Your task to perform on an android device: Open Google Chrome Image 0: 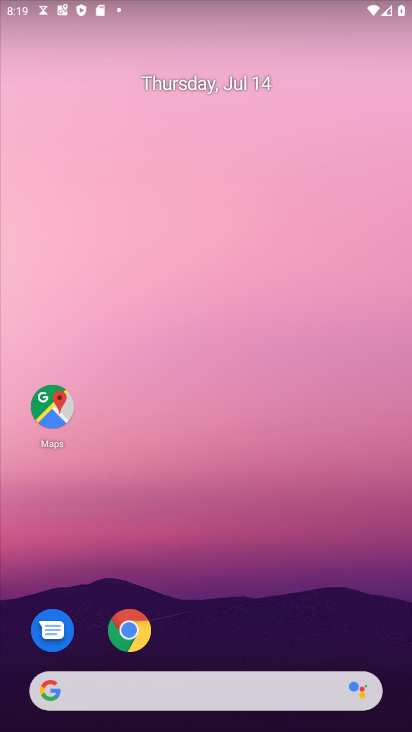
Step 0: click (136, 637)
Your task to perform on an android device: Open Google Chrome Image 1: 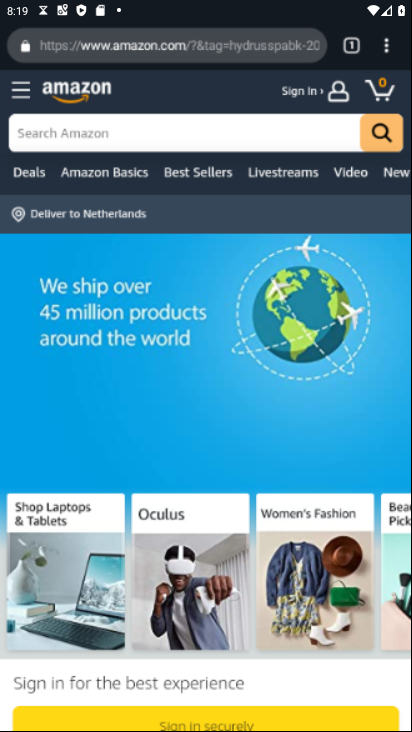
Step 1: task complete